Your task to perform on an android device: What is the news today? Image 0: 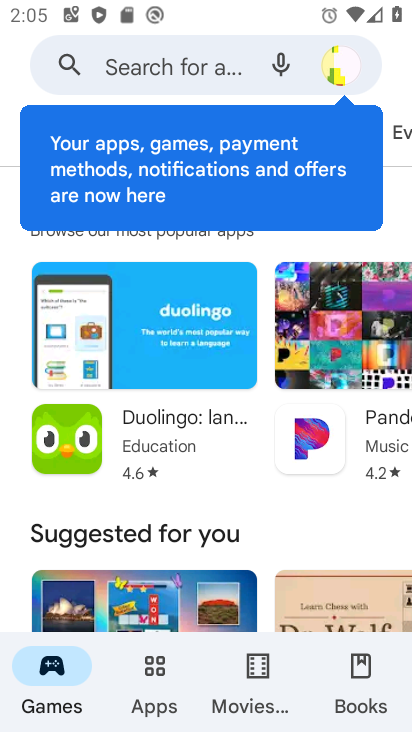
Step 0: press home button
Your task to perform on an android device: What is the news today? Image 1: 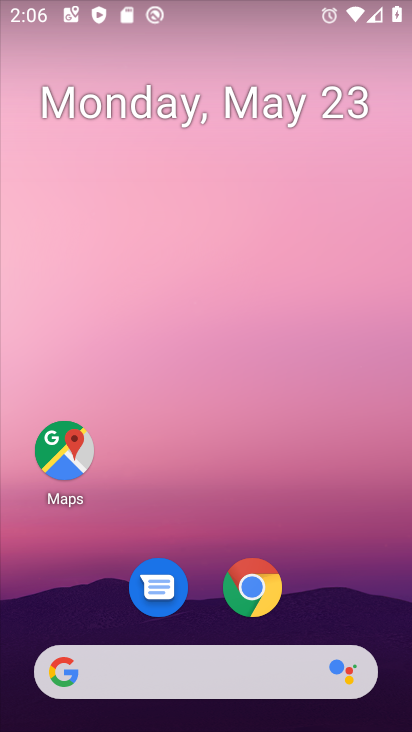
Step 1: click (219, 685)
Your task to perform on an android device: What is the news today? Image 2: 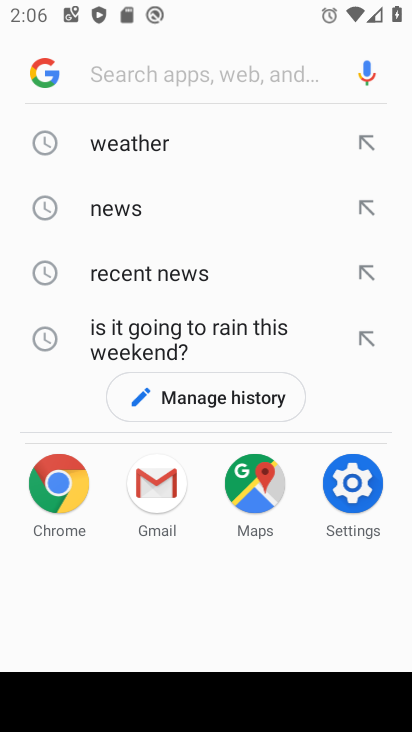
Step 2: click (110, 260)
Your task to perform on an android device: What is the news today? Image 3: 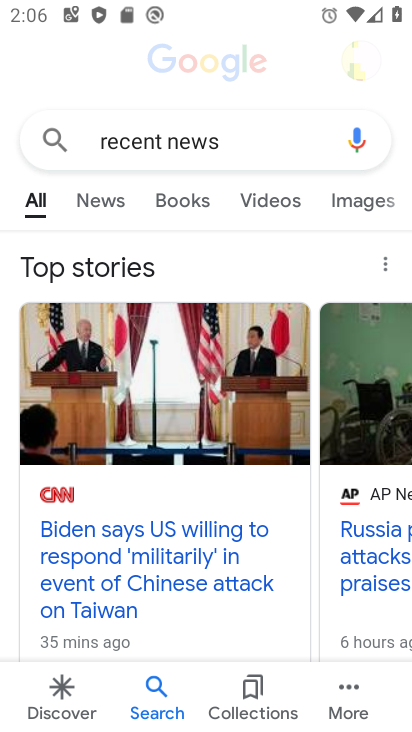
Step 3: task complete